Your task to perform on an android device: What's the weather going to be this weekend? Image 0: 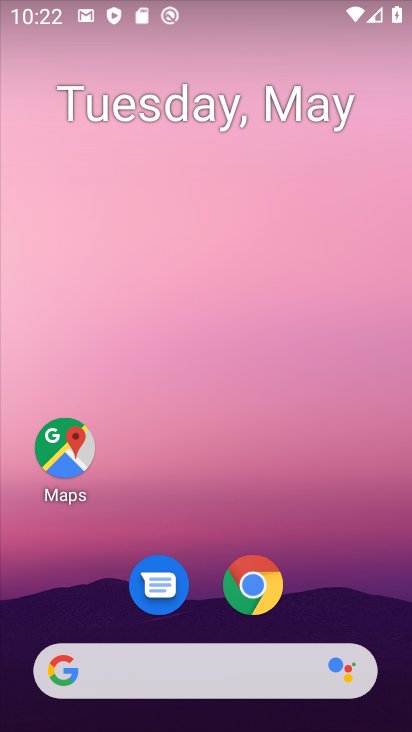
Step 0: click (173, 680)
Your task to perform on an android device: What's the weather going to be this weekend? Image 1: 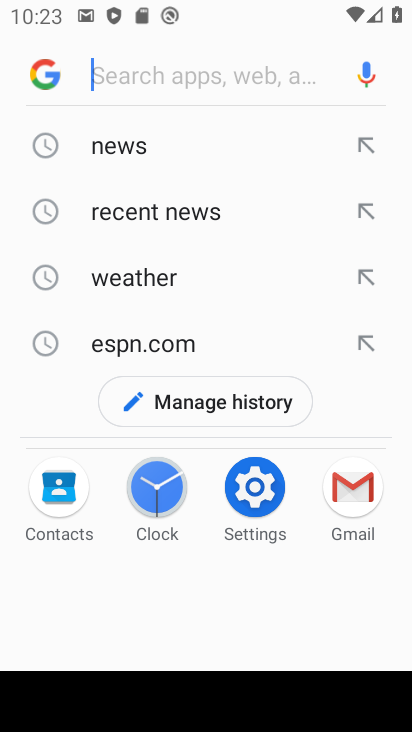
Step 1: click (40, 71)
Your task to perform on an android device: What's the weather going to be this weekend? Image 2: 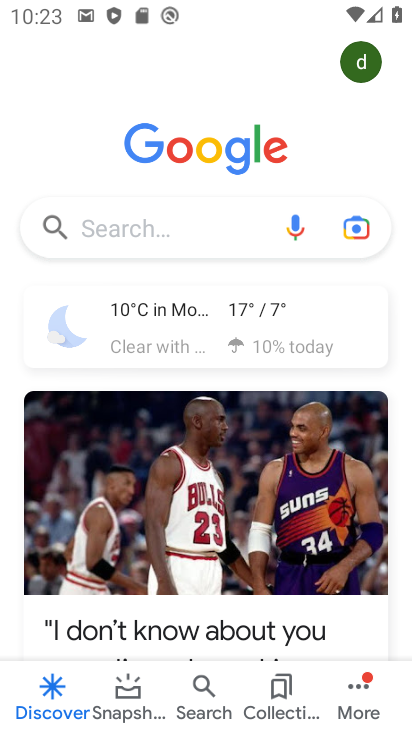
Step 2: click (284, 319)
Your task to perform on an android device: What's the weather going to be this weekend? Image 3: 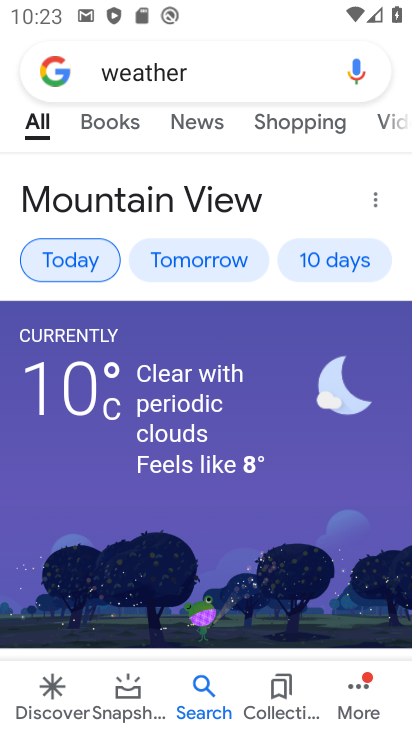
Step 3: click (336, 260)
Your task to perform on an android device: What's the weather going to be this weekend? Image 4: 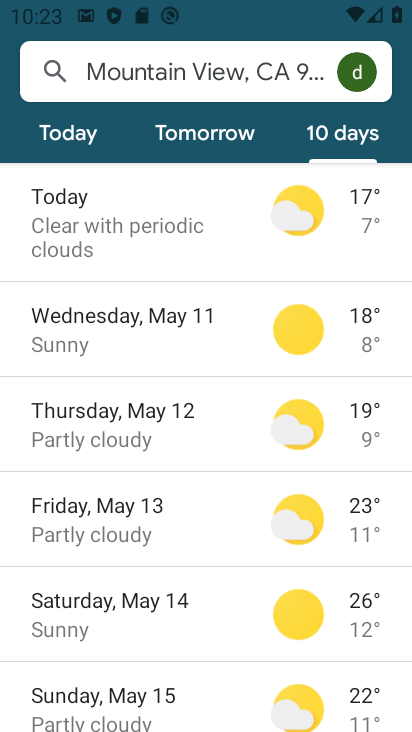
Step 4: click (63, 605)
Your task to perform on an android device: What's the weather going to be this weekend? Image 5: 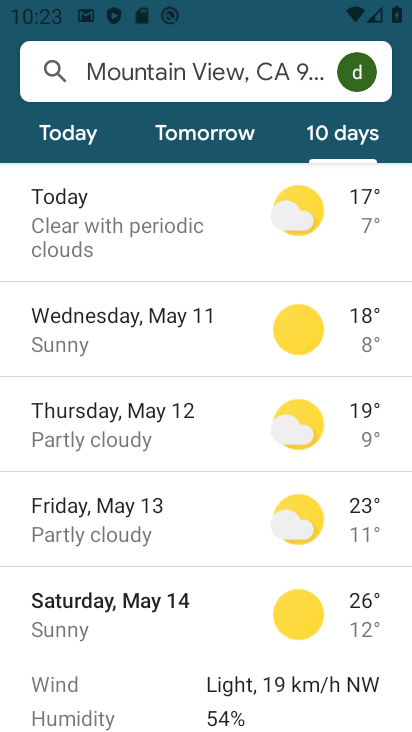
Step 5: task complete